Your task to perform on an android device: turn off priority inbox in the gmail app Image 0: 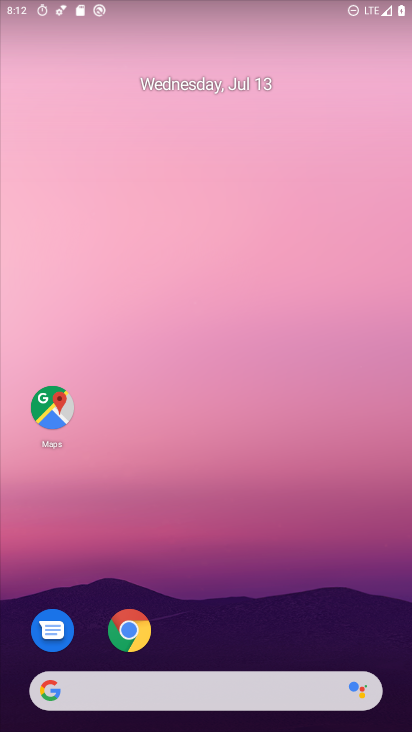
Step 0: drag from (399, 662) to (203, 72)
Your task to perform on an android device: turn off priority inbox in the gmail app Image 1: 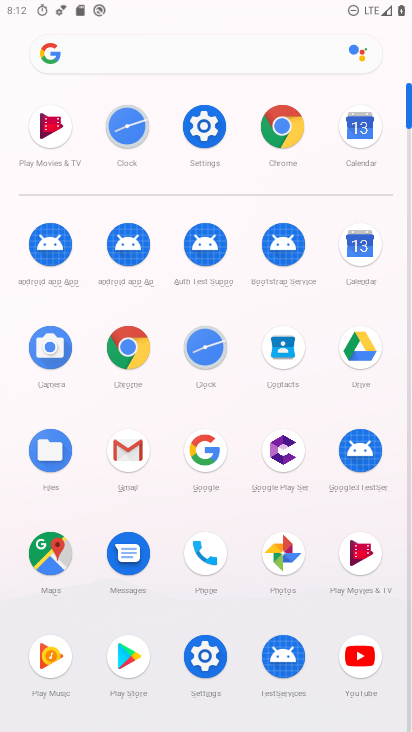
Step 1: click (125, 451)
Your task to perform on an android device: turn off priority inbox in the gmail app Image 2: 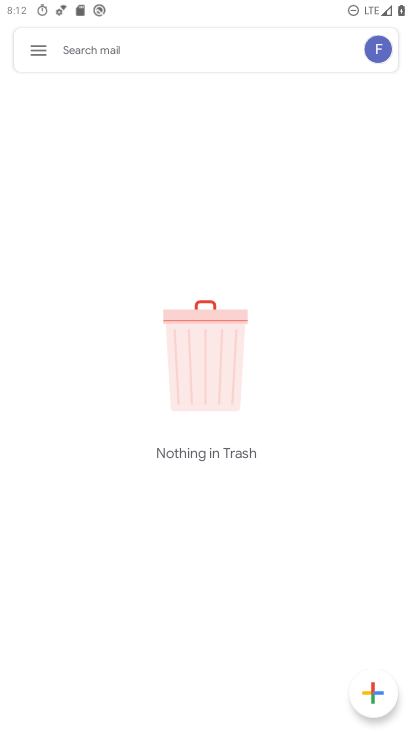
Step 2: click (41, 46)
Your task to perform on an android device: turn off priority inbox in the gmail app Image 3: 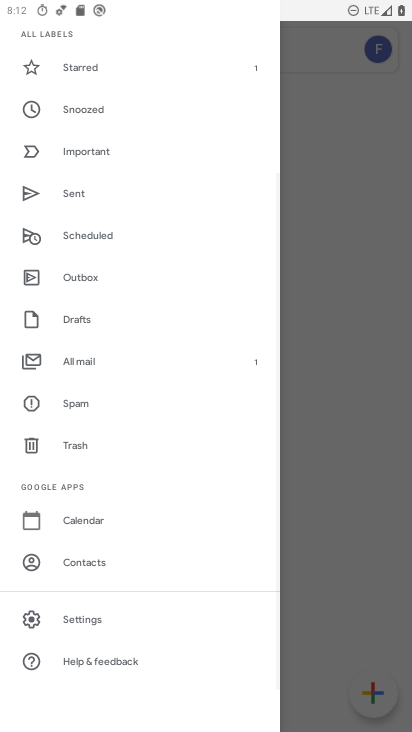
Step 3: click (71, 610)
Your task to perform on an android device: turn off priority inbox in the gmail app Image 4: 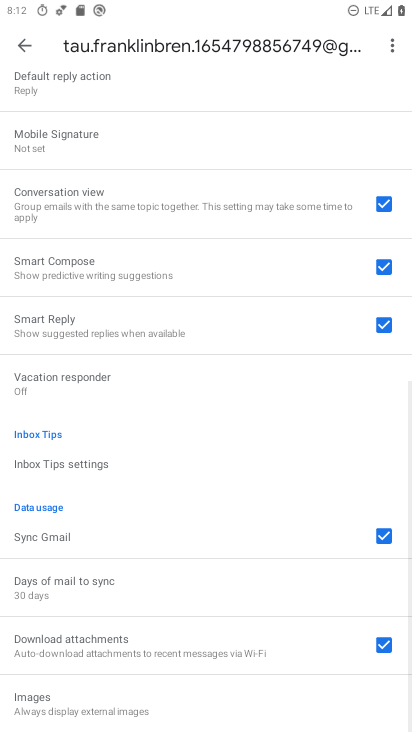
Step 4: drag from (72, 206) to (141, 723)
Your task to perform on an android device: turn off priority inbox in the gmail app Image 5: 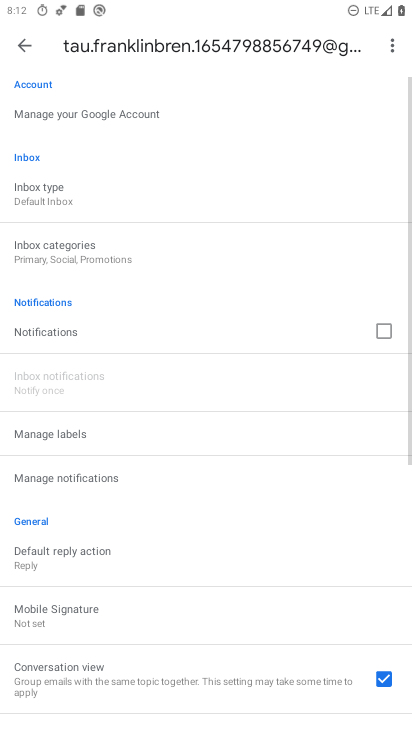
Step 5: drag from (94, 196) to (62, 727)
Your task to perform on an android device: turn off priority inbox in the gmail app Image 6: 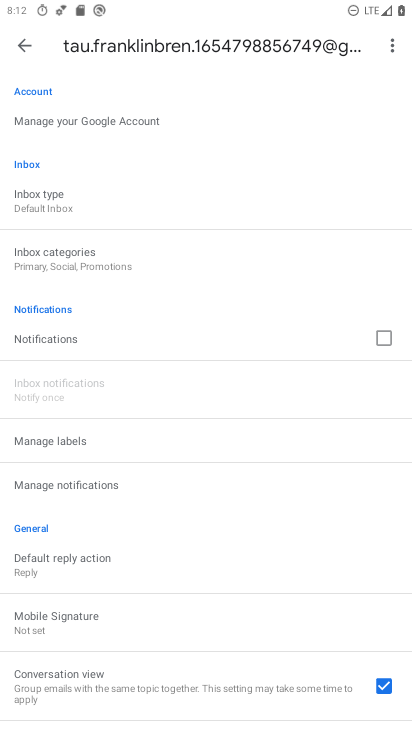
Step 6: click (52, 205)
Your task to perform on an android device: turn off priority inbox in the gmail app Image 7: 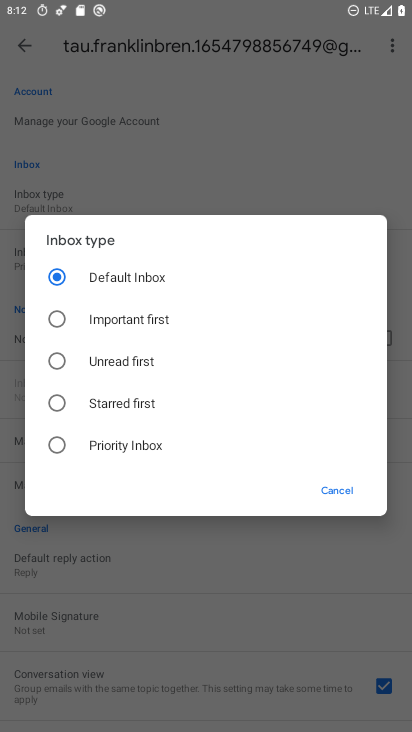
Step 7: task complete